Your task to perform on an android device: Open the stopwatch Image 0: 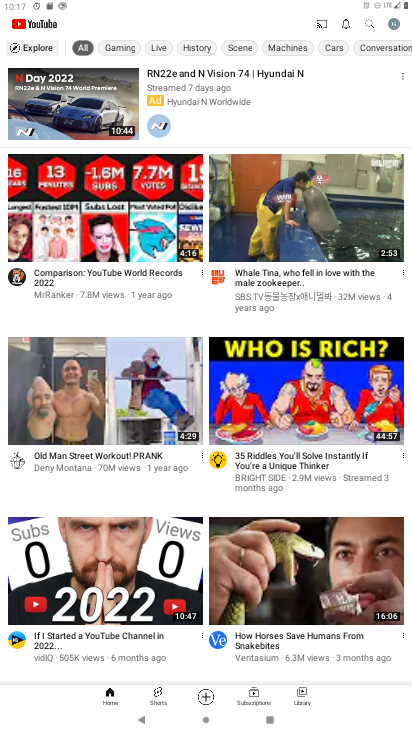
Step 0: press home button
Your task to perform on an android device: Open the stopwatch Image 1: 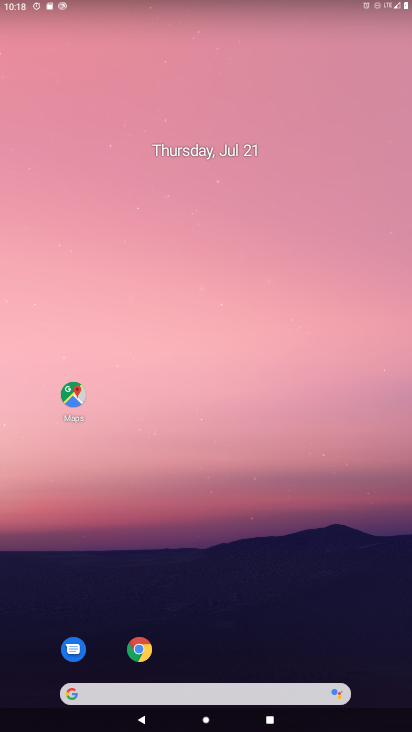
Step 1: drag from (357, 537) to (204, 2)
Your task to perform on an android device: Open the stopwatch Image 2: 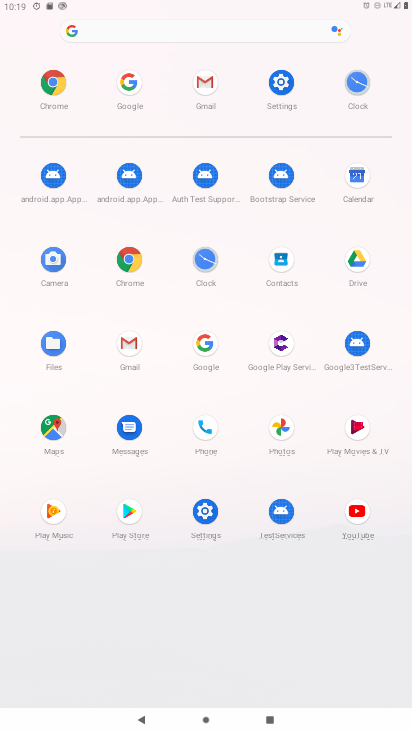
Step 2: click (201, 257)
Your task to perform on an android device: Open the stopwatch Image 3: 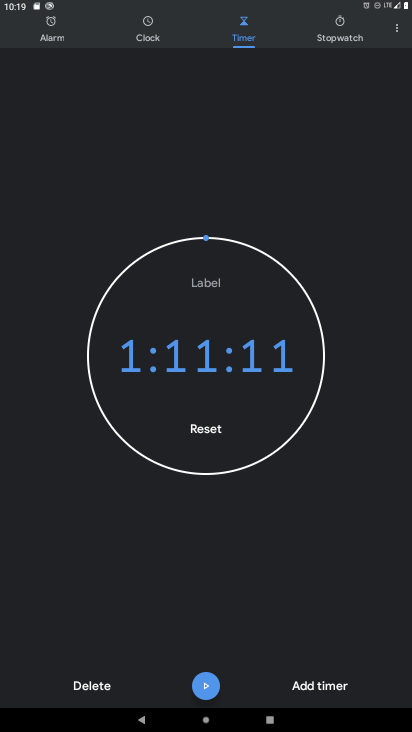
Step 3: click (344, 32)
Your task to perform on an android device: Open the stopwatch Image 4: 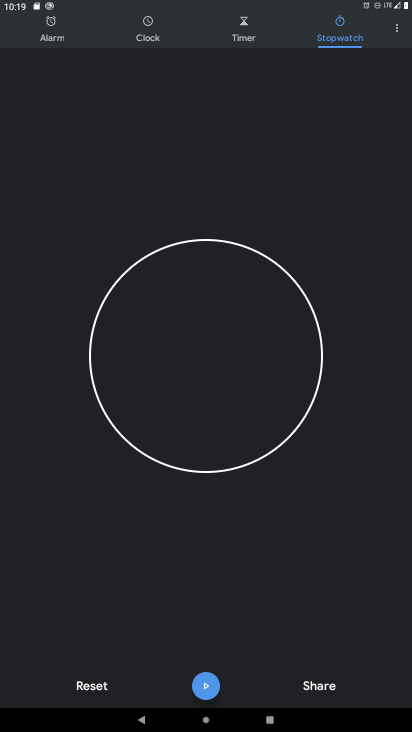
Step 4: task complete